Your task to perform on an android device: delete browsing data in the chrome app Image 0: 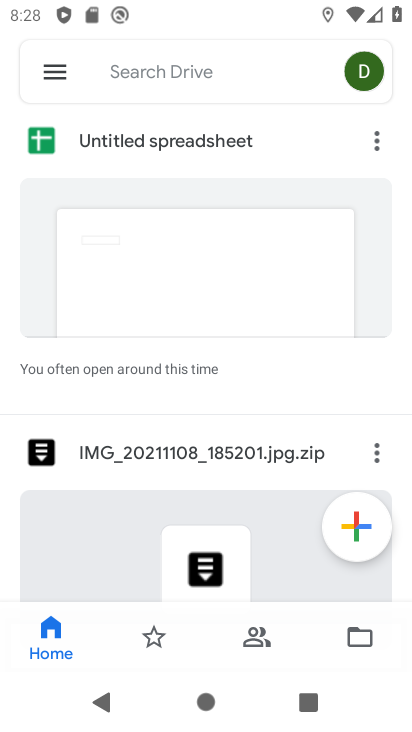
Step 0: press home button
Your task to perform on an android device: delete browsing data in the chrome app Image 1: 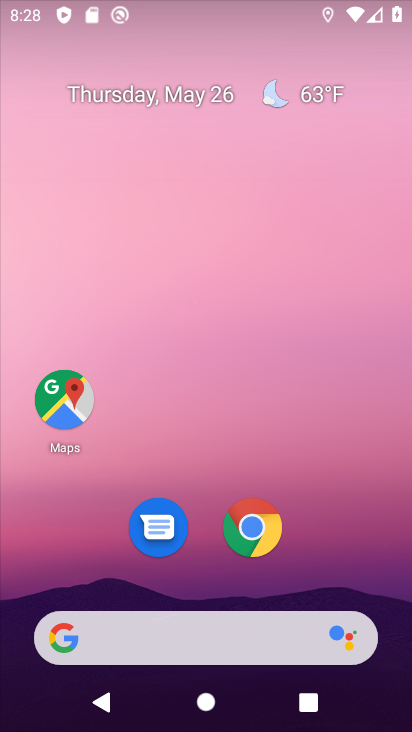
Step 1: drag from (363, 489) to (334, 112)
Your task to perform on an android device: delete browsing data in the chrome app Image 2: 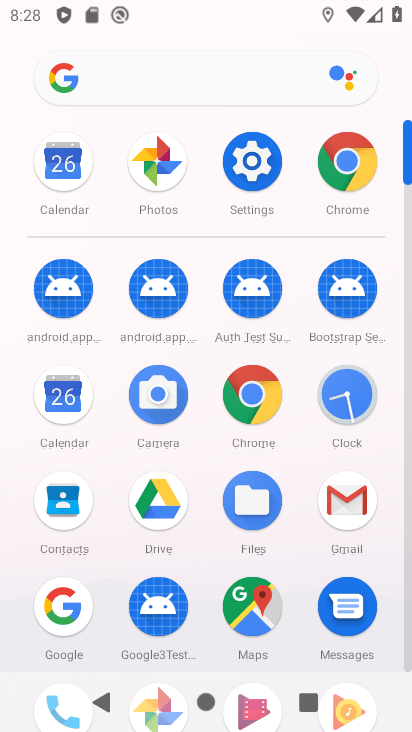
Step 2: click (352, 153)
Your task to perform on an android device: delete browsing data in the chrome app Image 3: 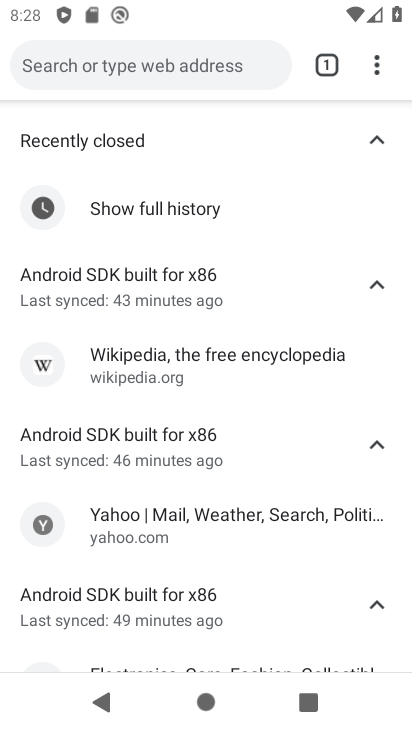
Step 3: drag from (372, 78) to (177, 373)
Your task to perform on an android device: delete browsing data in the chrome app Image 4: 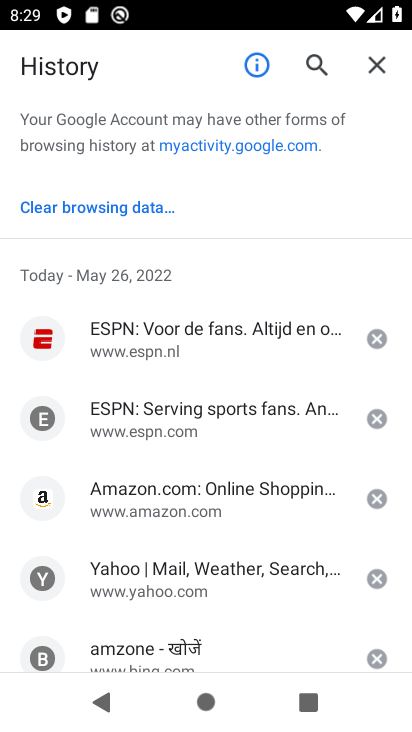
Step 4: click (101, 216)
Your task to perform on an android device: delete browsing data in the chrome app Image 5: 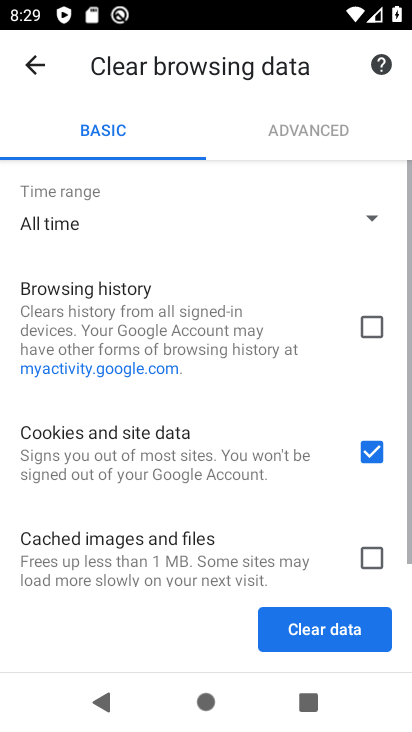
Step 5: click (330, 619)
Your task to perform on an android device: delete browsing data in the chrome app Image 6: 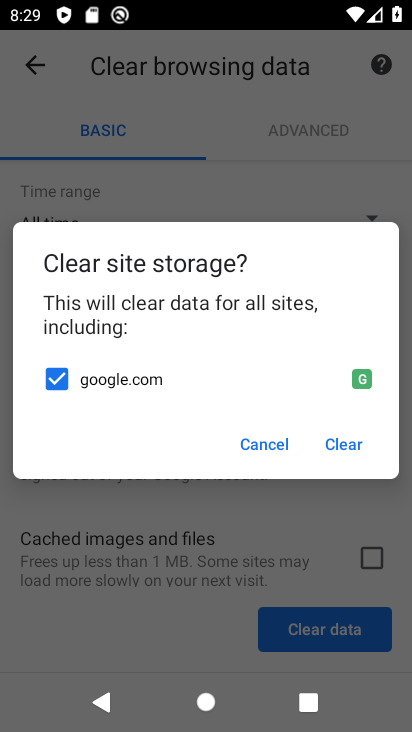
Step 6: click (343, 443)
Your task to perform on an android device: delete browsing data in the chrome app Image 7: 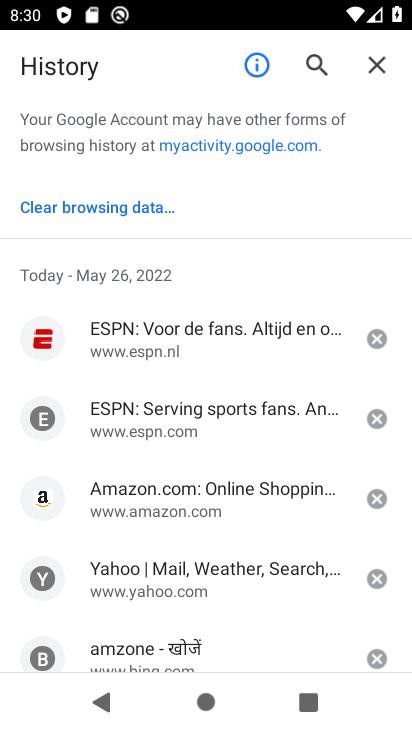
Step 7: click (89, 211)
Your task to perform on an android device: delete browsing data in the chrome app Image 8: 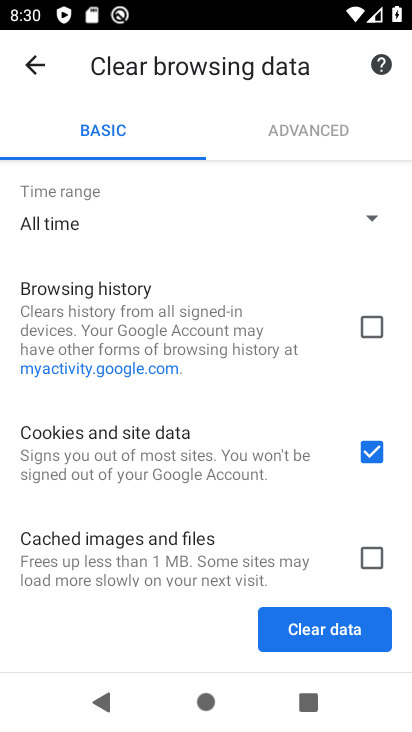
Step 8: click (365, 321)
Your task to perform on an android device: delete browsing data in the chrome app Image 9: 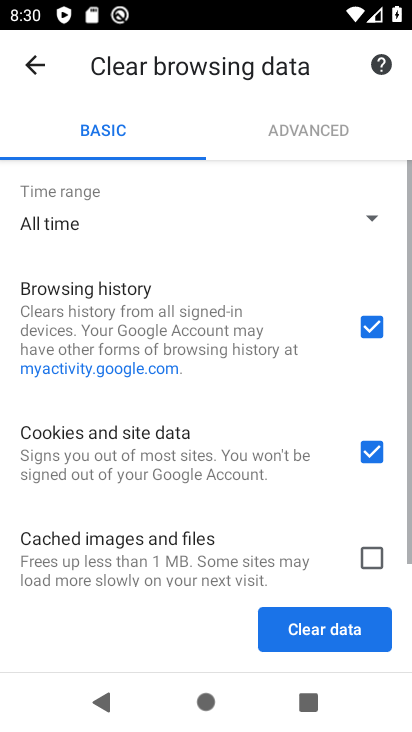
Step 9: click (368, 457)
Your task to perform on an android device: delete browsing data in the chrome app Image 10: 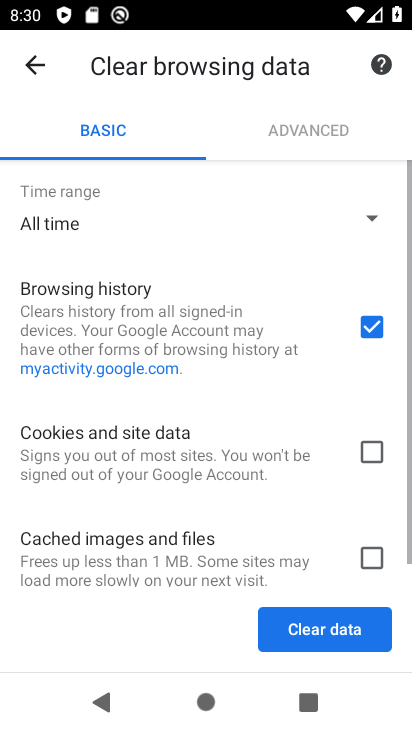
Step 10: click (308, 639)
Your task to perform on an android device: delete browsing data in the chrome app Image 11: 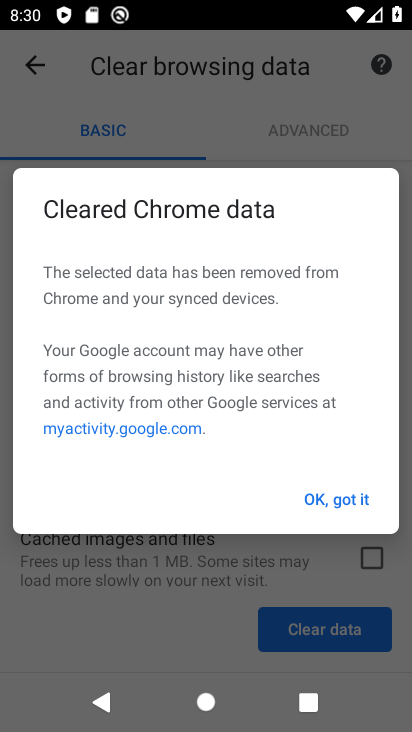
Step 11: click (324, 511)
Your task to perform on an android device: delete browsing data in the chrome app Image 12: 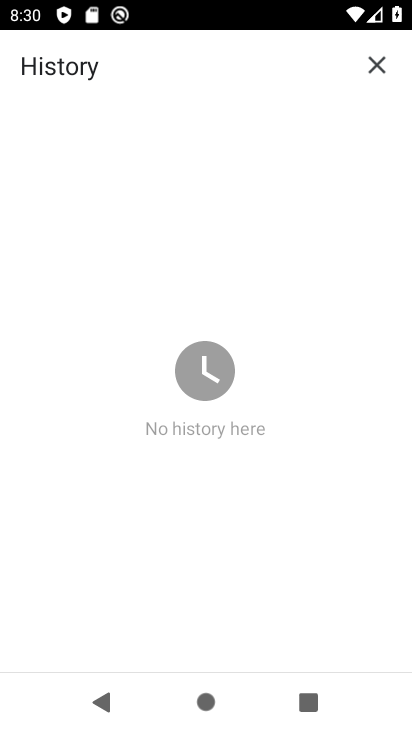
Step 12: task complete